Your task to perform on an android device: toggle pop-ups in chrome Image 0: 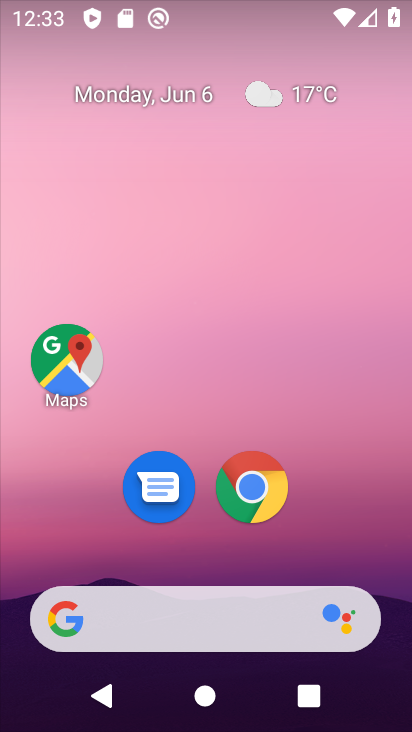
Step 0: drag from (201, 575) to (268, 80)
Your task to perform on an android device: toggle pop-ups in chrome Image 1: 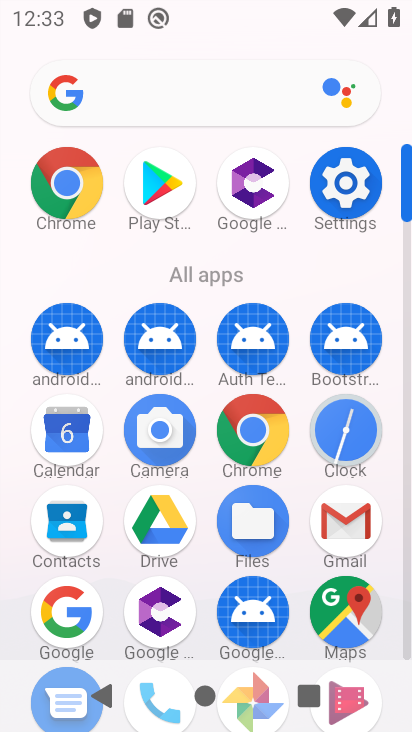
Step 1: click (341, 191)
Your task to perform on an android device: toggle pop-ups in chrome Image 2: 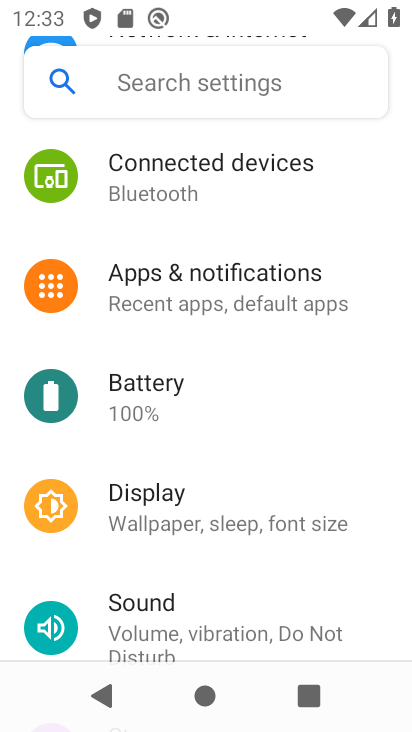
Step 2: press back button
Your task to perform on an android device: toggle pop-ups in chrome Image 3: 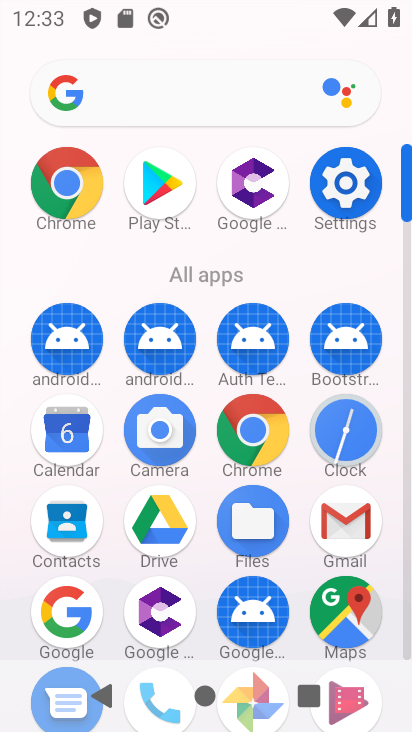
Step 3: press back button
Your task to perform on an android device: toggle pop-ups in chrome Image 4: 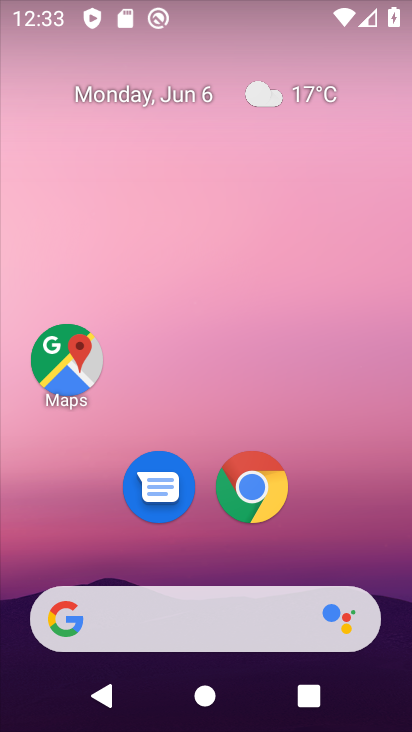
Step 4: click (237, 477)
Your task to perform on an android device: toggle pop-ups in chrome Image 5: 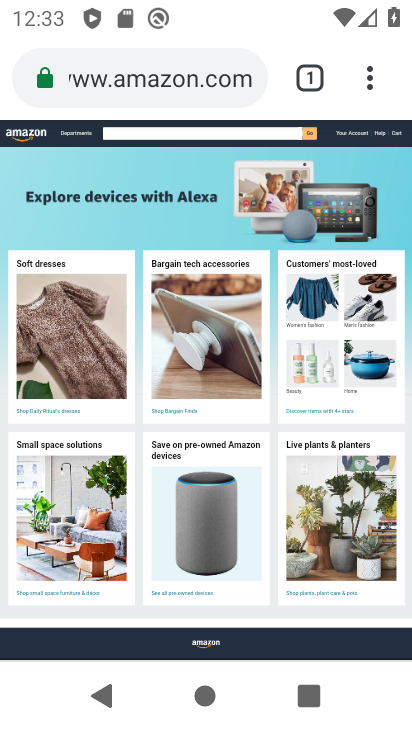
Step 5: drag from (373, 69) to (140, 535)
Your task to perform on an android device: toggle pop-ups in chrome Image 6: 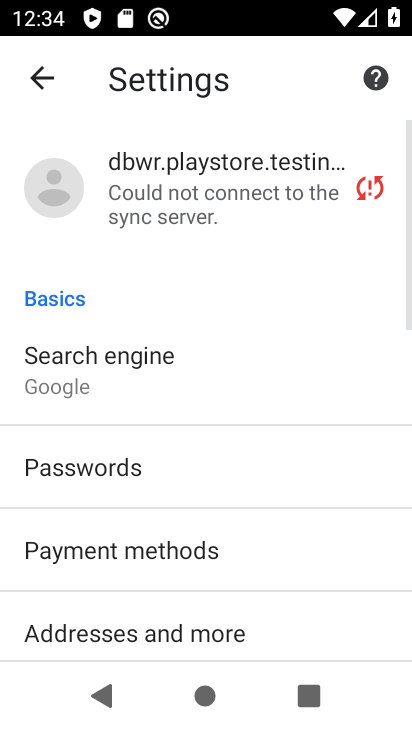
Step 6: drag from (177, 581) to (279, 105)
Your task to perform on an android device: toggle pop-ups in chrome Image 7: 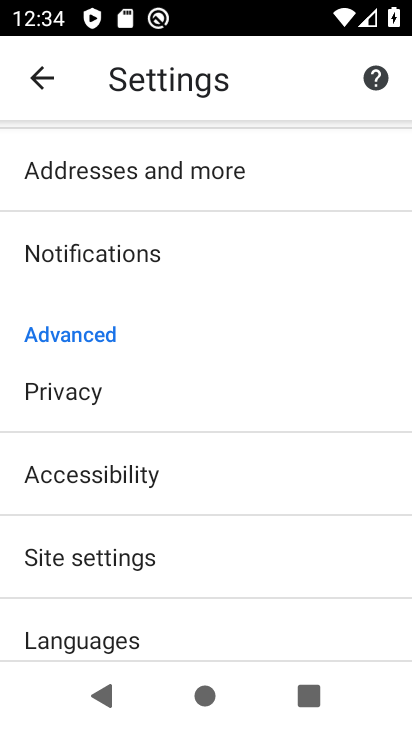
Step 7: click (142, 552)
Your task to perform on an android device: toggle pop-ups in chrome Image 8: 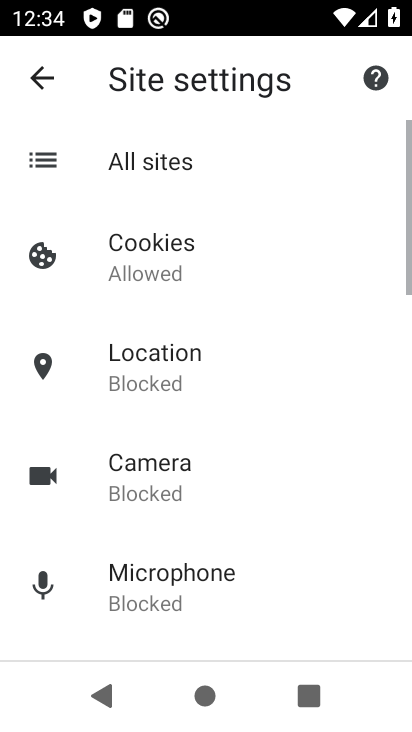
Step 8: drag from (166, 577) to (227, 126)
Your task to perform on an android device: toggle pop-ups in chrome Image 9: 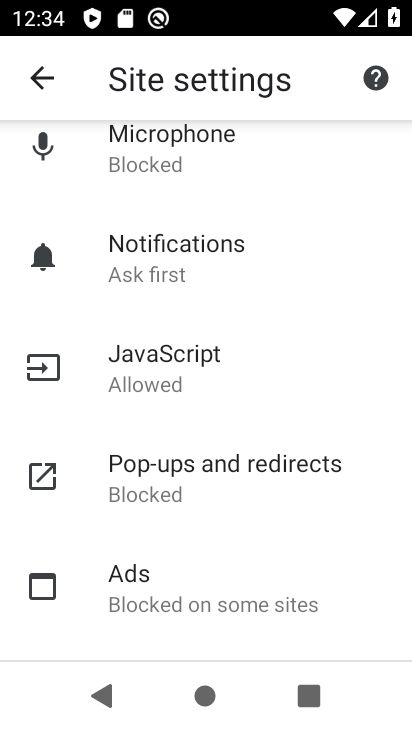
Step 9: click (205, 477)
Your task to perform on an android device: toggle pop-ups in chrome Image 10: 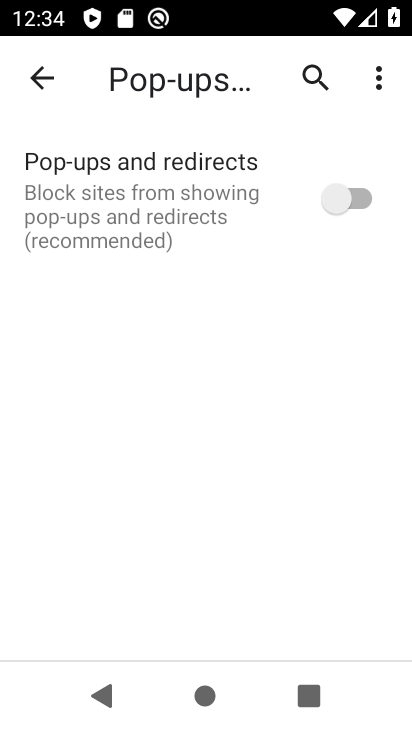
Step 10: click (351, 194)
Your task to perform on an android device: toggle pop-ups in chrome Image 11: 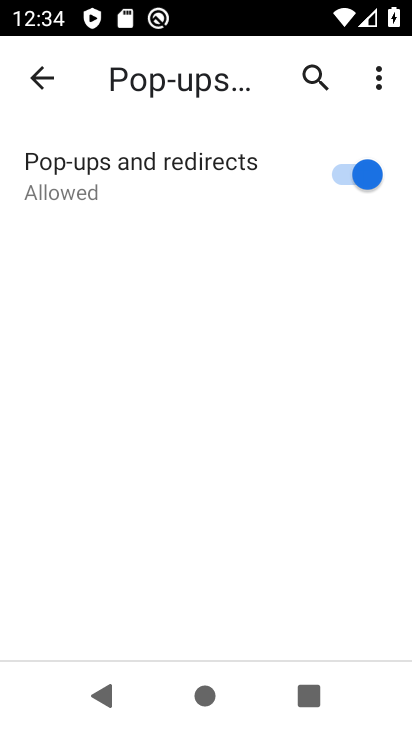
Step 11: task complete